Your task to perform on an android device: open a new tab in the chrome app Image 0: 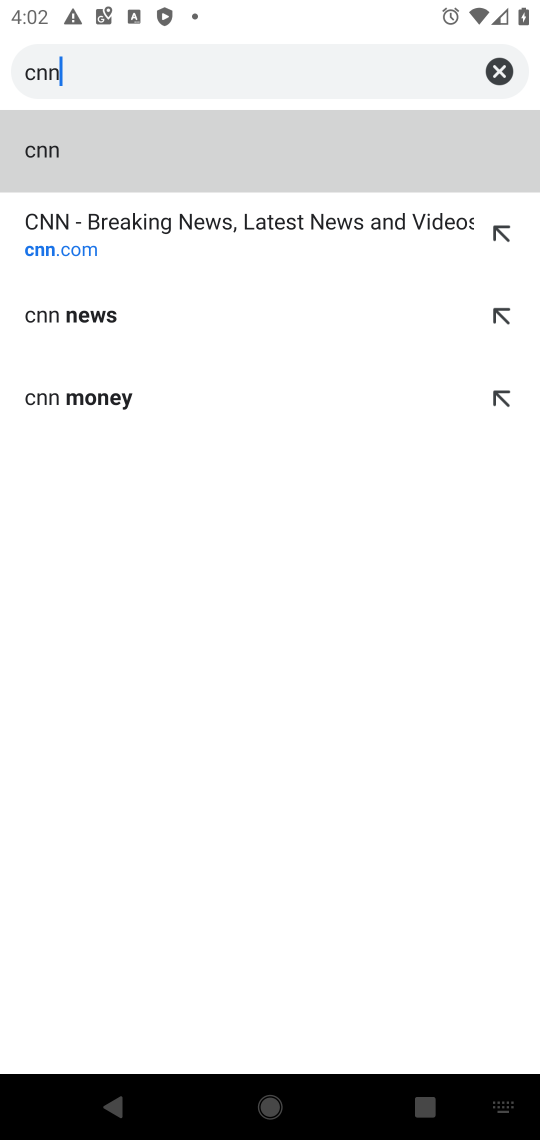
Step 0: click (150, 215)
Your task to perform on an android device: open a new tab in the chrome app Image 1: 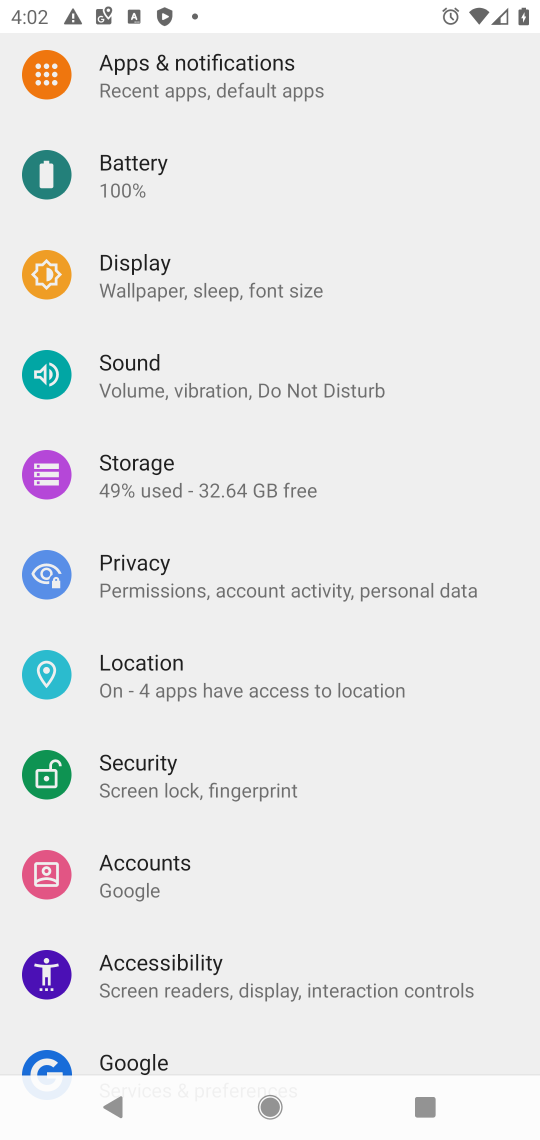
Step 1: press home button
Your task to perform on an android device: open a new tab in the chrome app Image 2: 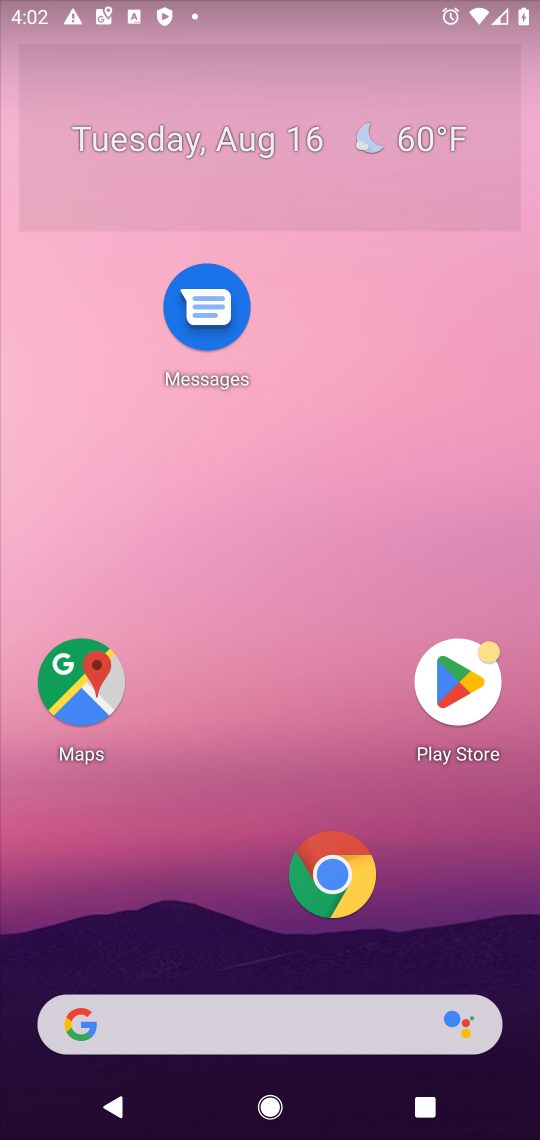
Step 2: click (331, 876)
Your task to perform on an android device: open a new tab in the chrome app Image 3: 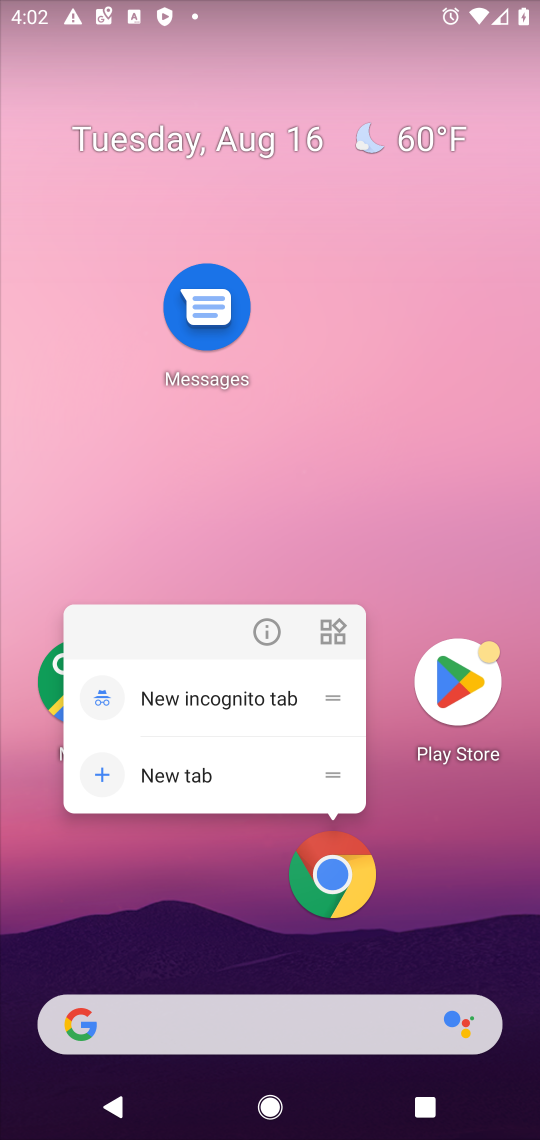
Step 3: click (332, 875)
Your task to perform on an android device: open a new tab in the chrome app Image 4: 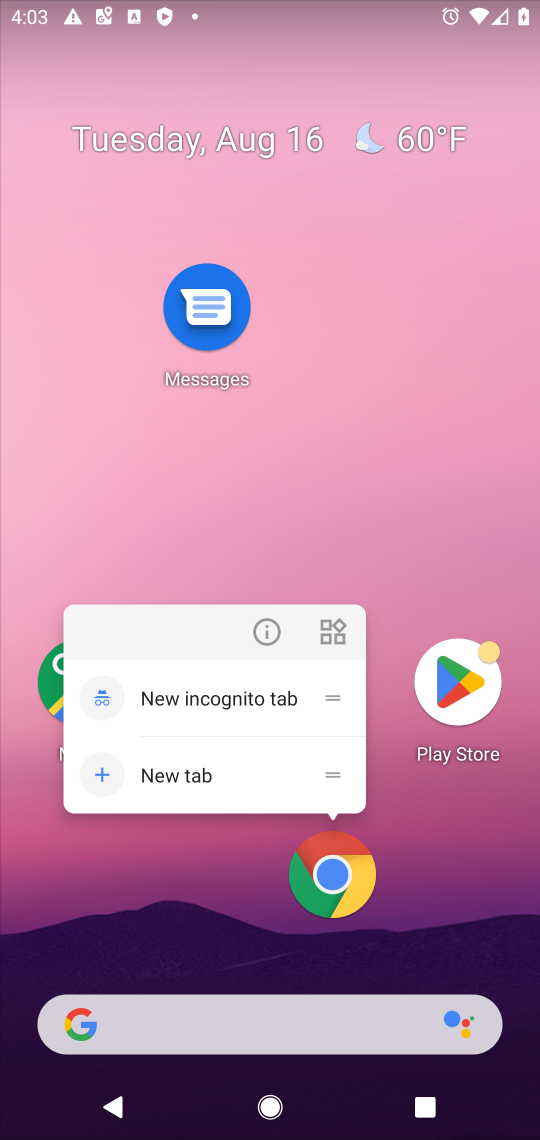
Step 4: click (336, 875)
Your task to perform on an android device: open a new tab in the chrome app Image 5: 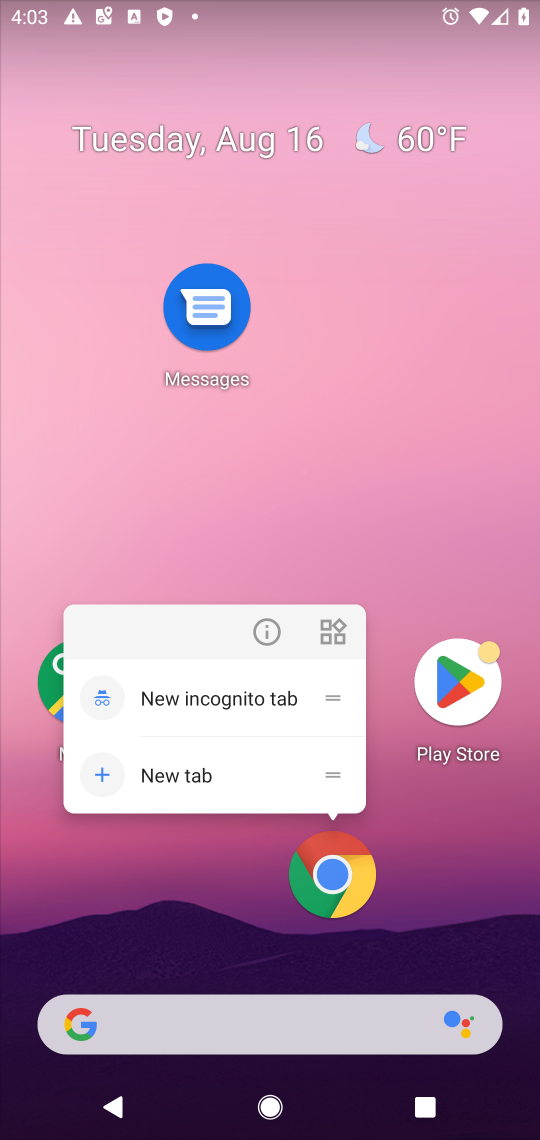
Step 5: click (336, 875)
Your task to perform on an android device: open a new tab in the chrome app Image 6: 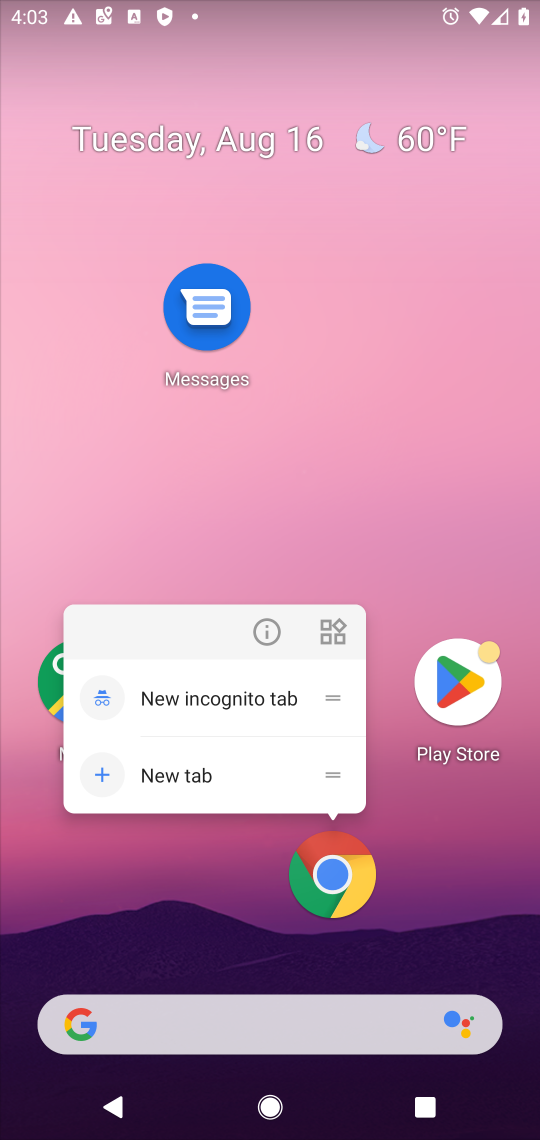
Step 6: click (329, 876)
Your task to perform on an android device: open a new tab in the chrome app Image 7: 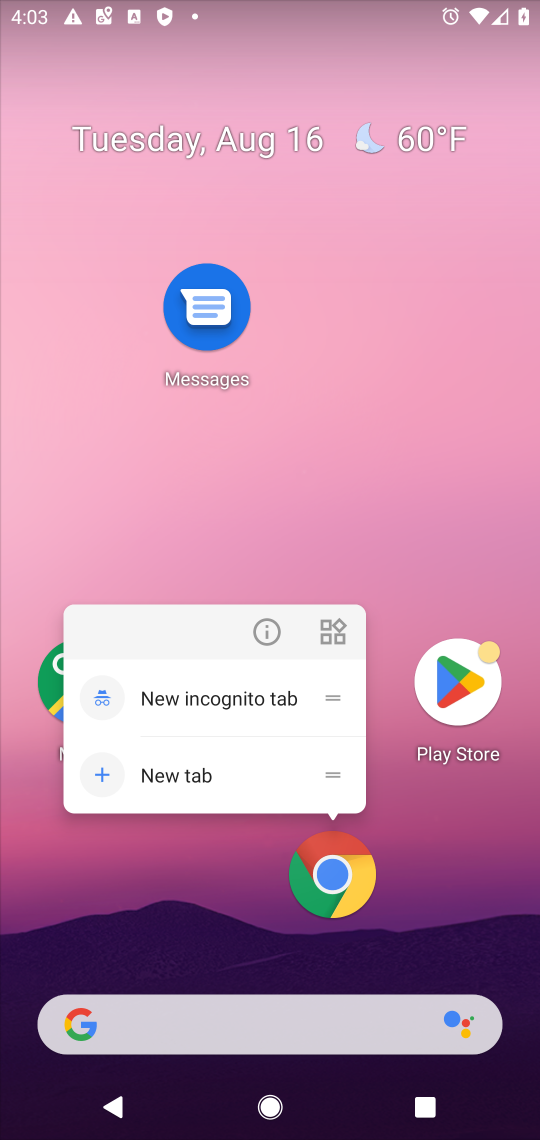
Step 7: click (329, 876)
Your task to perform on an android device: open a new tab in the chrome app Image 8: 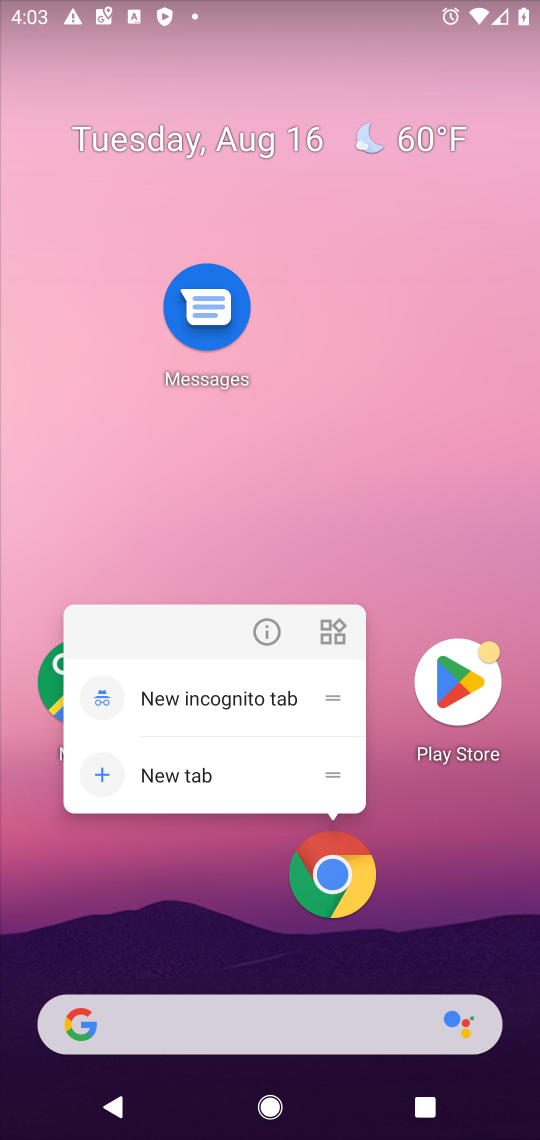
Step 8: click (334, 874)
Your task to perform on an android device: open a new tab in the chrome app Image 9: 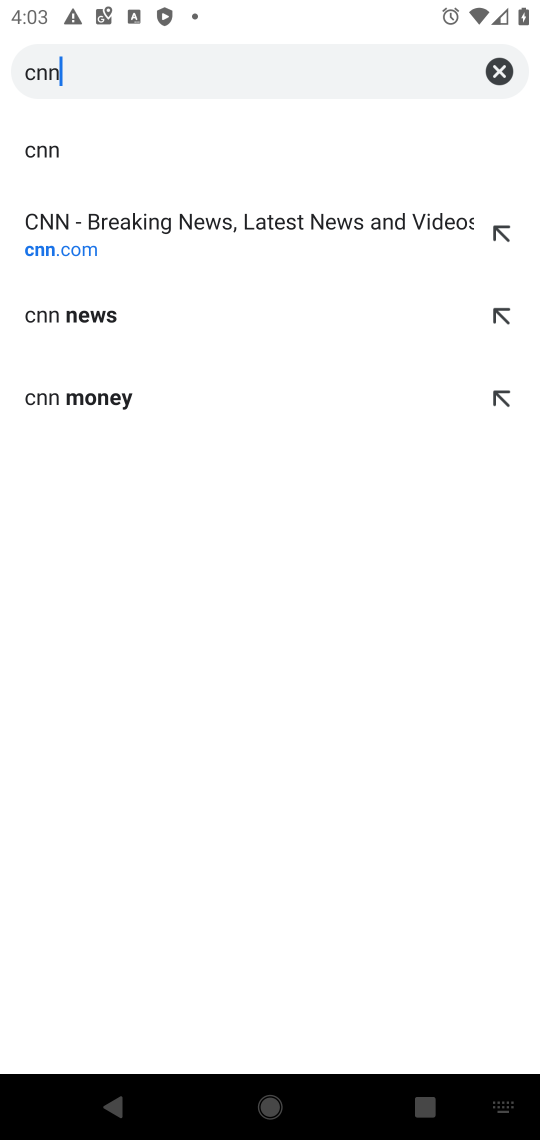
Step 9: click (503, 72)
Your task to perform on an android device: open a new tab in the chrome app Image 10: 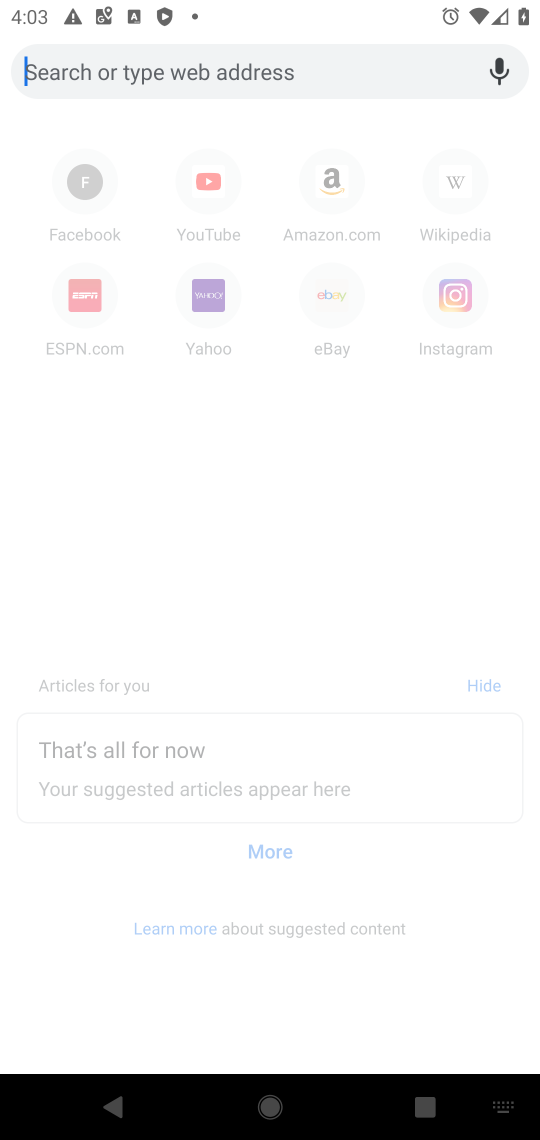
Step 10: click (221, 67)
Your task to perform on an android device: open a new tab in the chrome app Image 11: 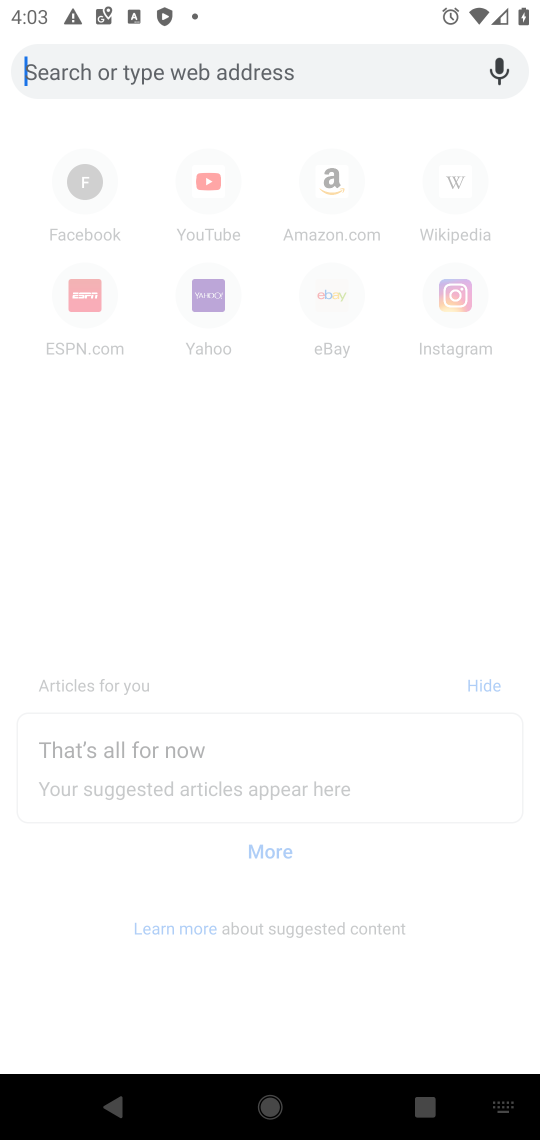
Step 11: click (190, 73)
Your task to perform on an android device: open a new tab in the chrome app Image 12: 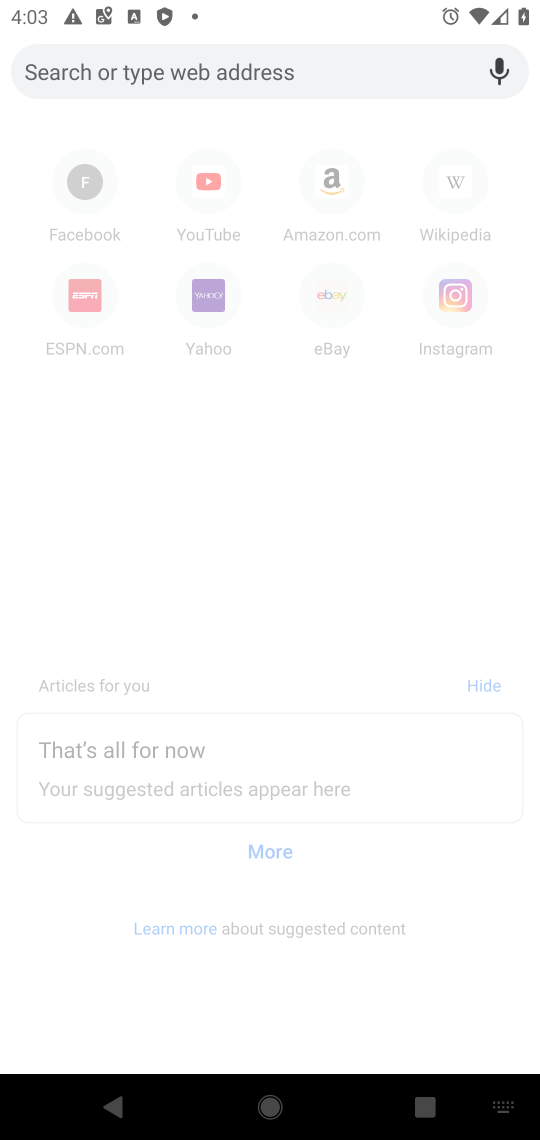
Step 12: click (244, 486)
Your task to perform on an android device: open a new tab in the chrome app Image 13: 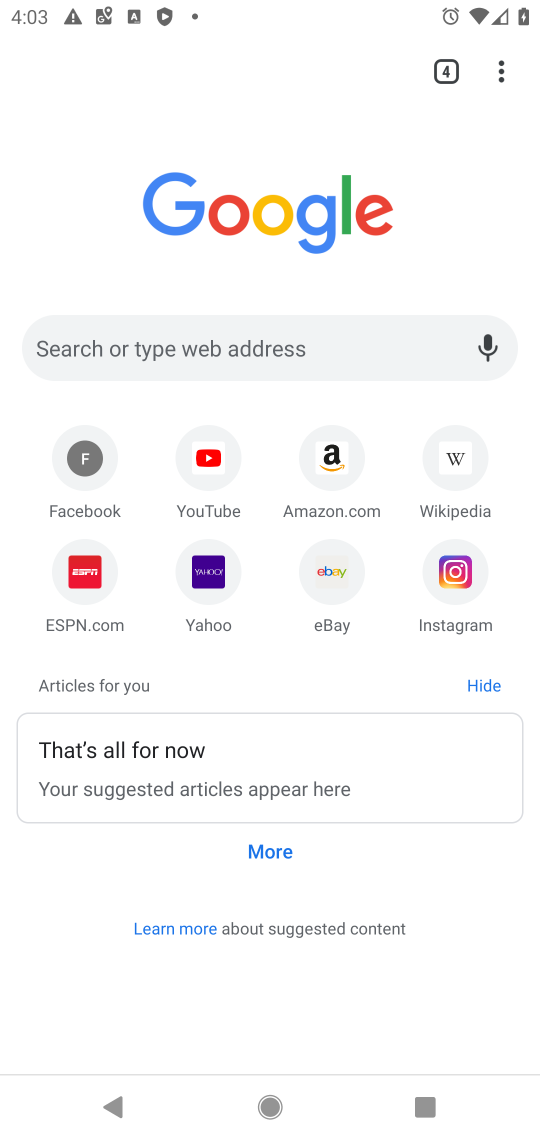
Step 13: click (443, 74)
Your task to perform on an android device: open a new tab in the chrome app Image 14: 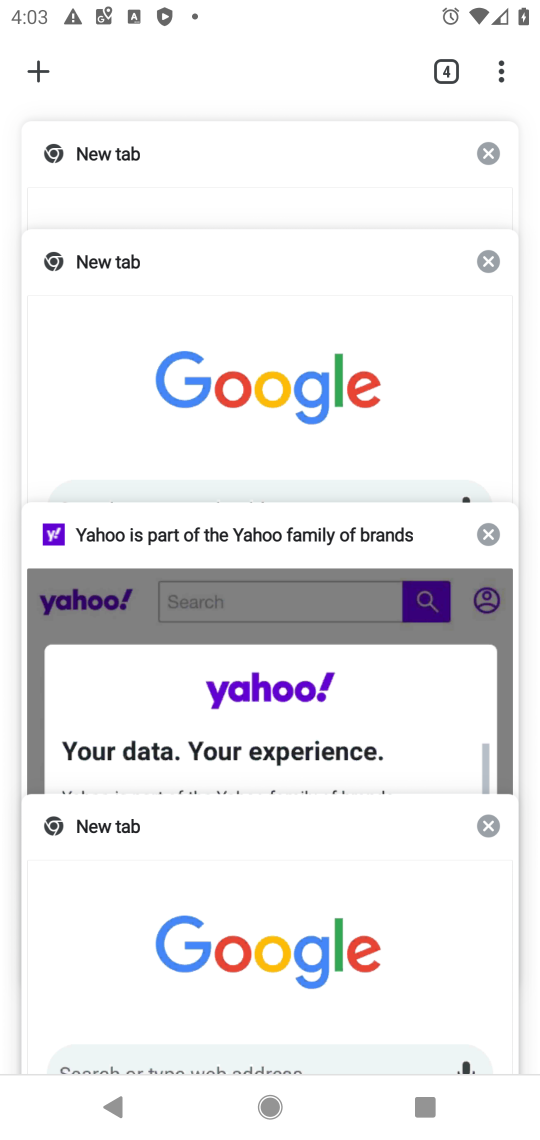
Step 14: click (40, 65)
Your task to perform on an android device: open a new tab in the chrome app Image 15: 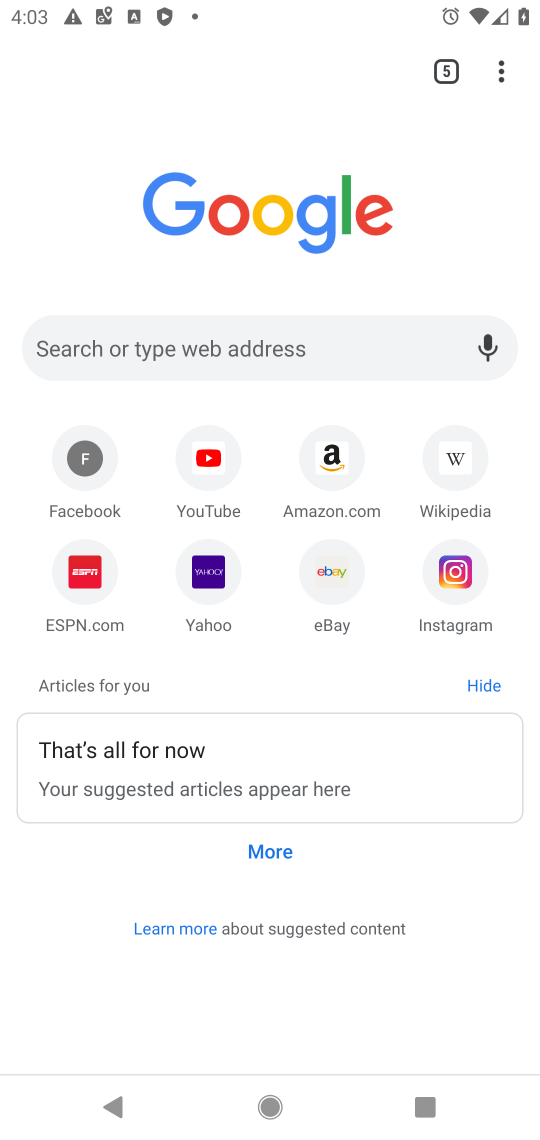
Step 15: task complete